Your task to perform on an android device: turn on the 24-hour format for clock Image 0: 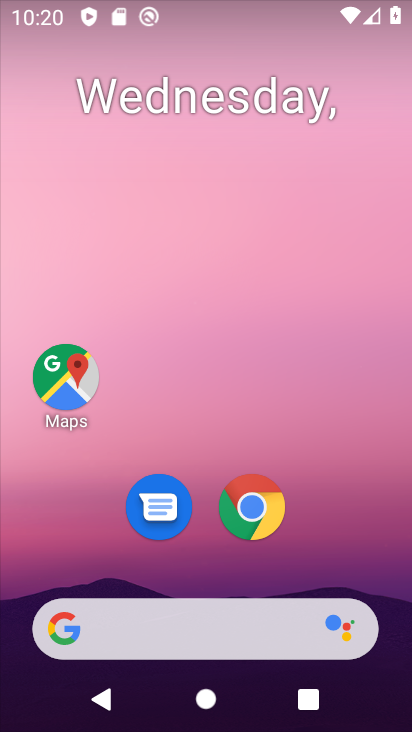
Step 0: drag from (330, 466) to (342, 230)
Your task to perform on an android device: turn on the 24-hour format for clock Image 1: 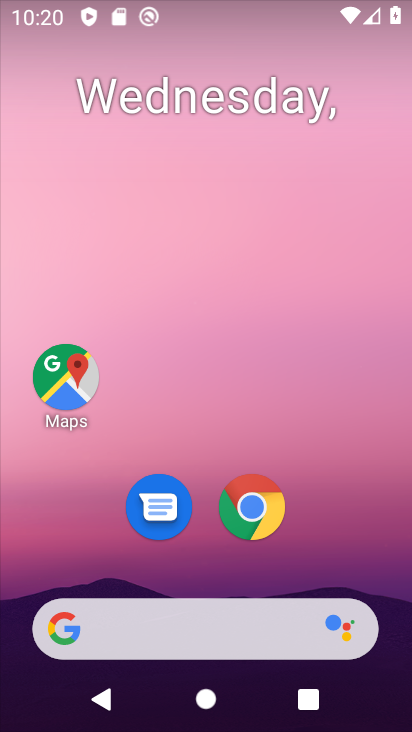
Step 1: drag from (281, 480) to (298, 203)
Your task to perform on an android device: turn on the 24-hour format for clock Image 2: 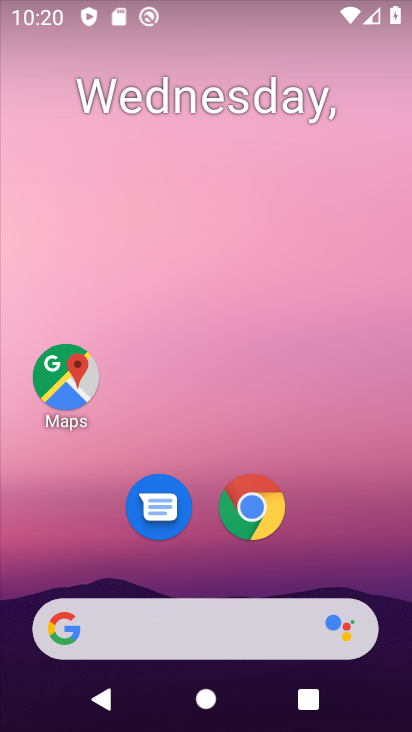
Step 2: drag from (283, 557) to (255, 265)
Your task to perform on an android device: turn on the 24-hour format for clock Image 3: 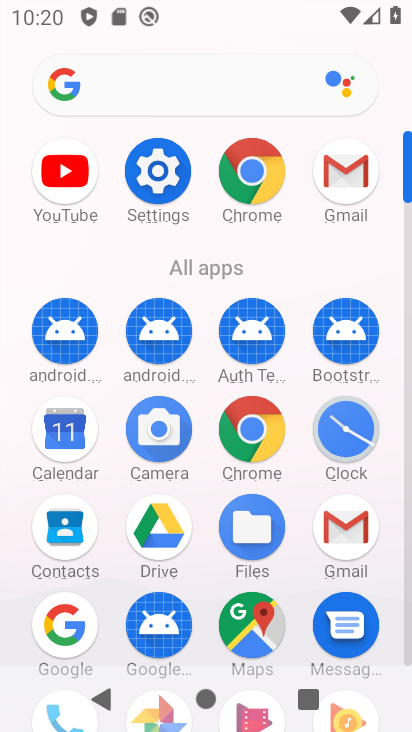
Step 3: click (331, 423)
Your task to perform on an android device: turn on the 24-hour format for clock Image 4: 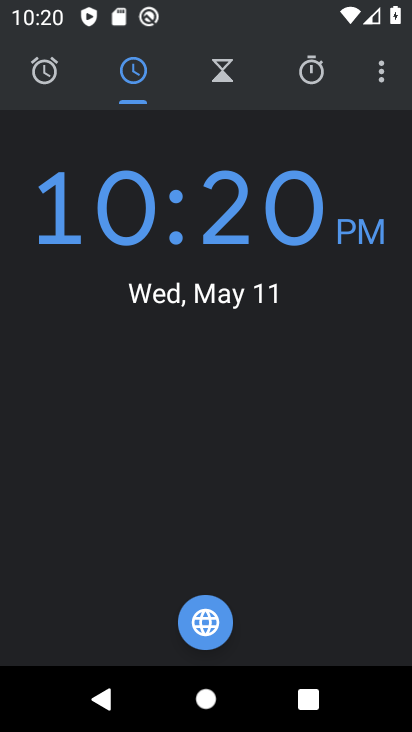
Step 4: click (379, 80)
Your task to perform on an android device: turn on the 24-hour format for clock Image 5: 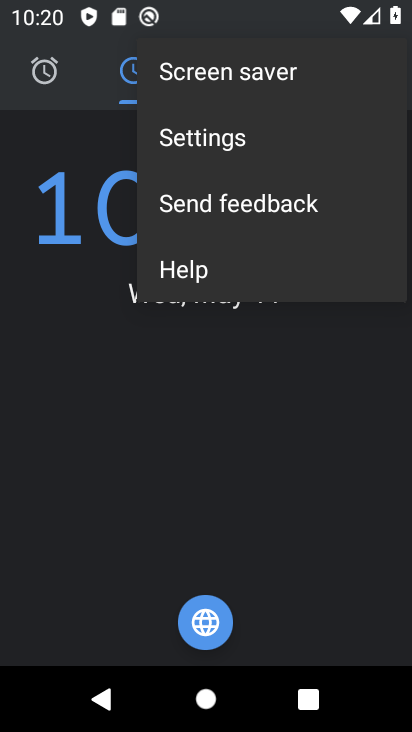
Step 5: click (234, 119)
Your task to perform on an android device: turn on the 24-hour format for clock Image 6: 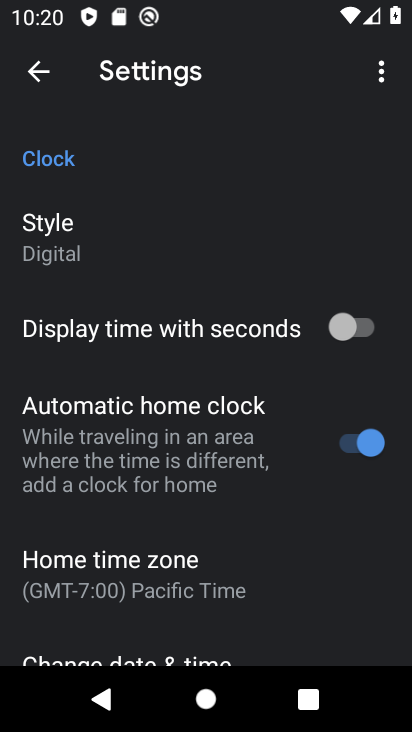
Step 6: drag from (214, 538) to (248, 223)
Your task to perform on an android device: turn on the 24-hour format for clock Image 7: 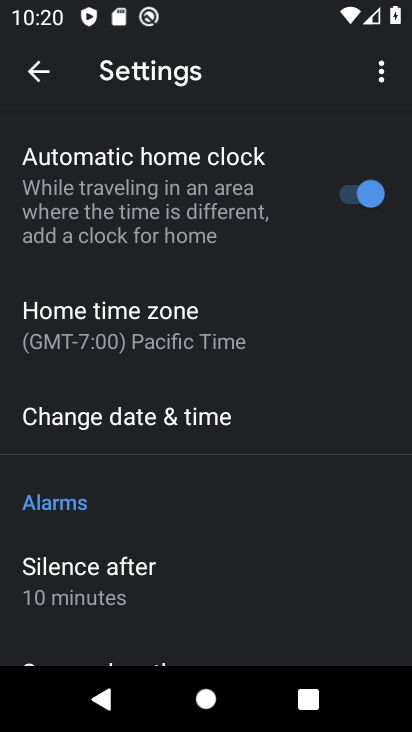
Step 7: click (108, 423)
Your task to perform on an android device: turn on the 24-hour format for clock Image 8: 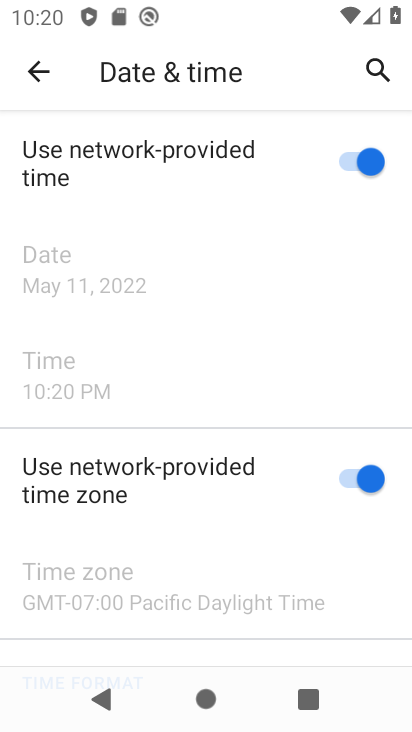
Step 8: drag from (221, 542) to (282, 237)
Your task to perform on an android device: turn on the 24-hour format for clock Image 9: 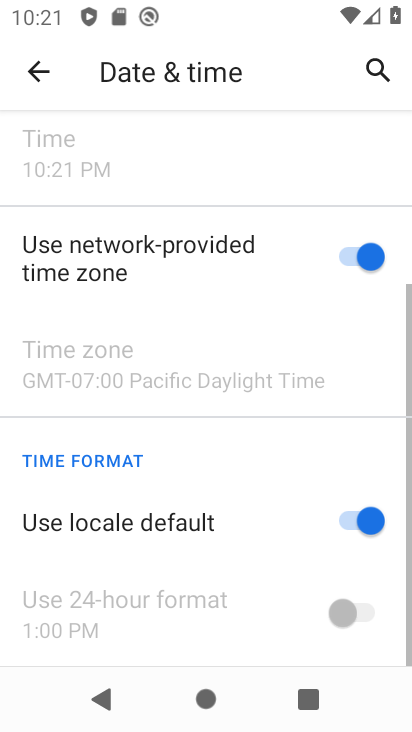
Step 9: click (350, 515)
Your task to perform on an android device: turn on the 24-hour format for clock Image 10: 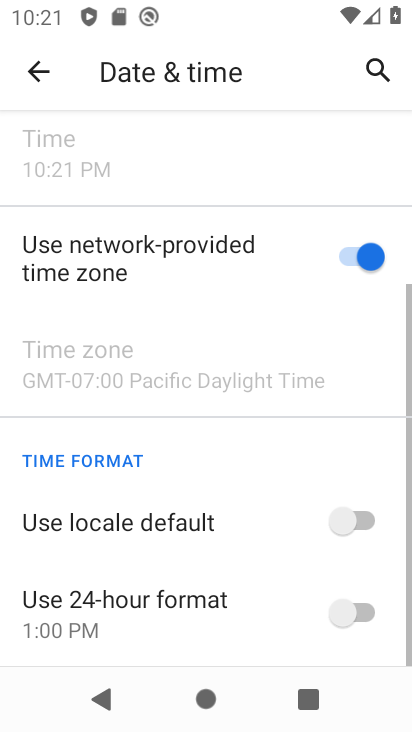
Step 10: click (356, 615)
Your task to perform on an android device: turn on the 24-hour format for clock Image 11: 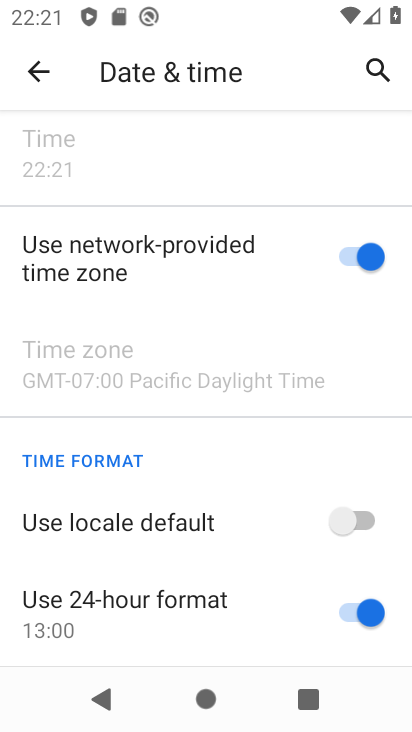
Step 11: task complete